Your task to perform on an android device: clear history in the chrome app Image 0: 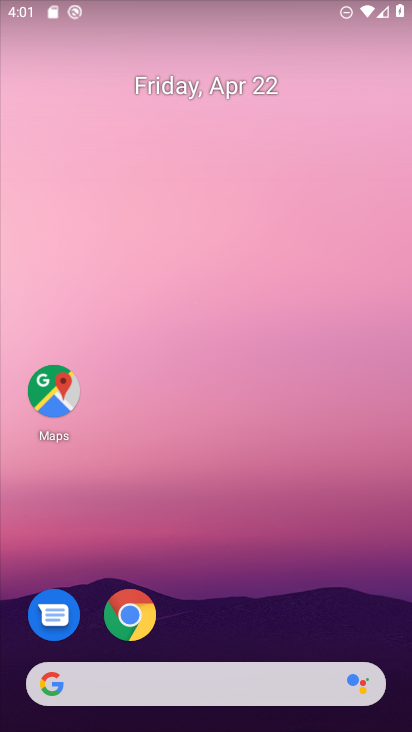
Step 0: drag from (302, 603) to (289, 76)
Your task to perform on an android device: clear history in the chrome app Image 1: 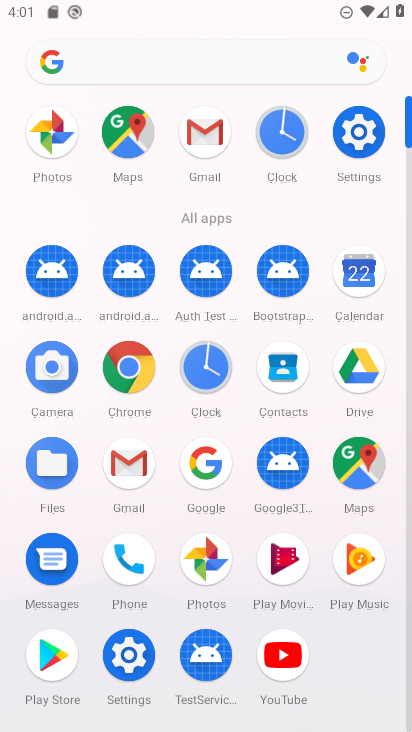
Step 1: click (130, 359)
Your task to perform on an android device: clear history in the chrome app Image 2: 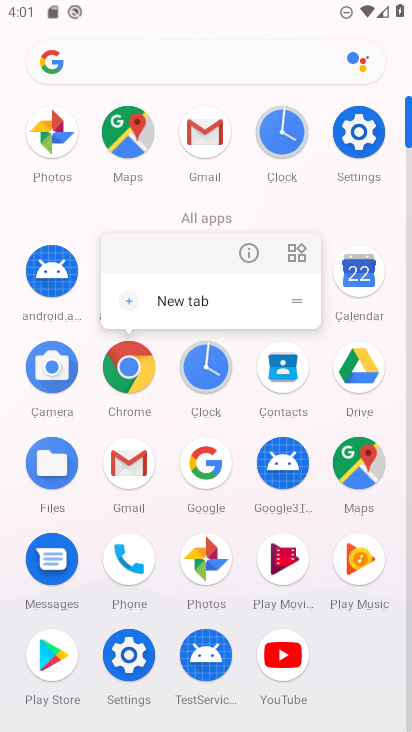
Step 2: click (139, 385)
Your task to perform on an android device: clear history in the chrome app Image 3: 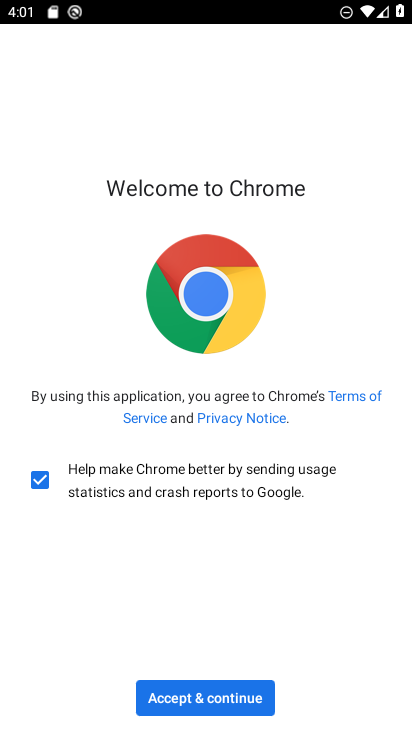
Step 3: click (220, 700)
Your task to perform on an android device: clear history in the chrome app Image 4: 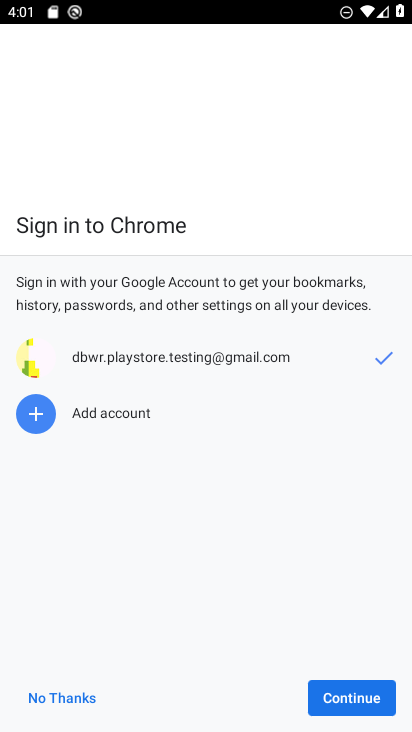
Step 4: click (326, 685)
Your task to perform on an android device: clear history in the chrome app Image 5: 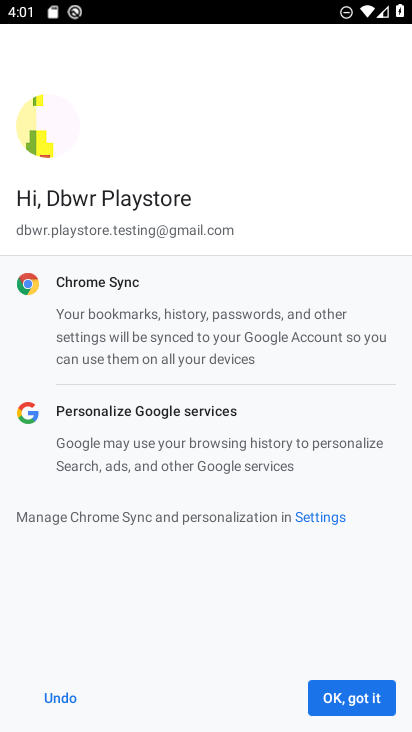
Step 5: click (325, 684)
Your task to perform on an android device: clear history in the chrome app Image 6: 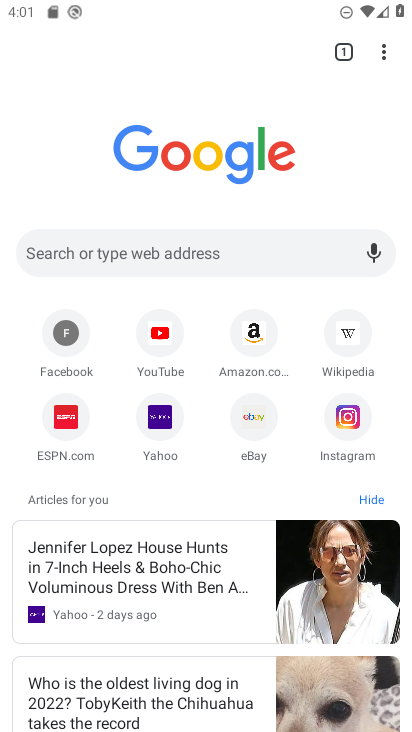
Step 6: task complete